Your task to perform on an android device: turn smart compose on in the gmail app Image 0: 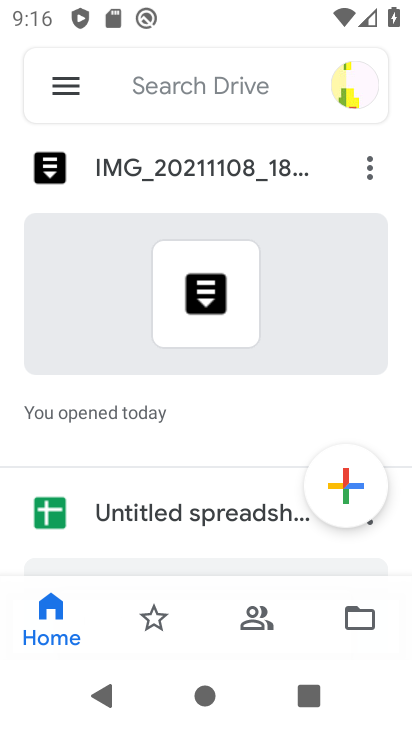
Step 0: press home button
Your task to perform on an android device: turn smart compose on in the gmail app Image 1: 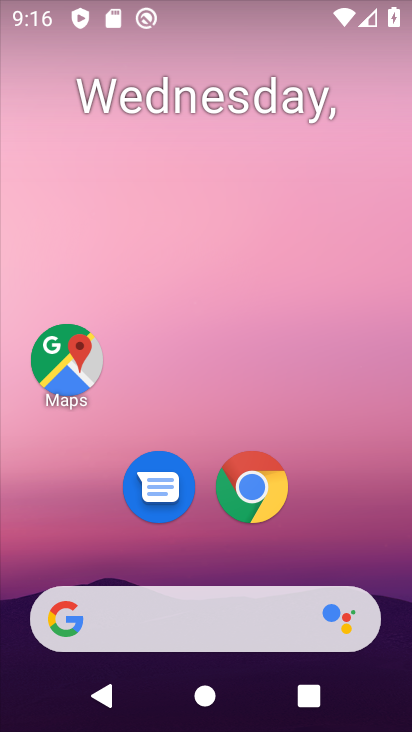
Step 1: drag from (70, 492) to (210, 206)
Your task to perform on an android device: turn smart compose on in the gmail app Image 2: 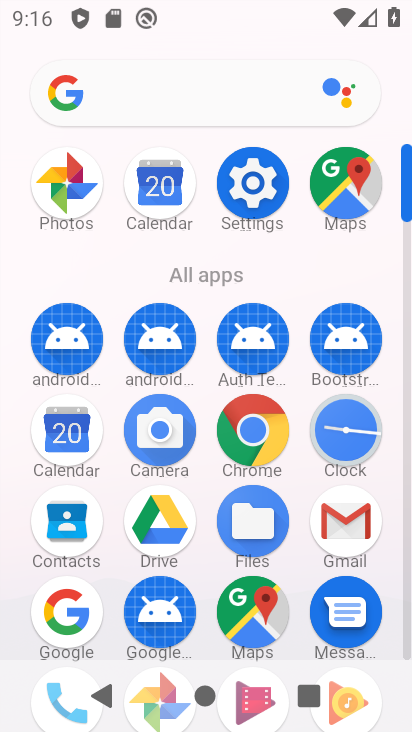
Step 2: click (322, 513)
Your task to perform on an android device: turn smart compose on in the gmail app Image 3: 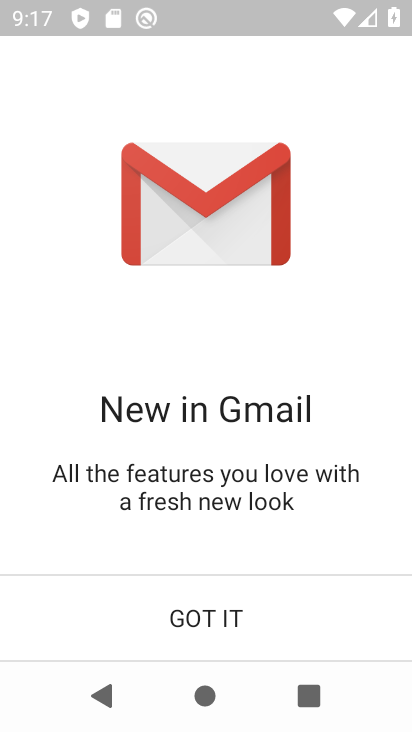
Step 3: click (90, 609)
Your task to perform on an android device: turn smart compose on in the gmail app Image 4: 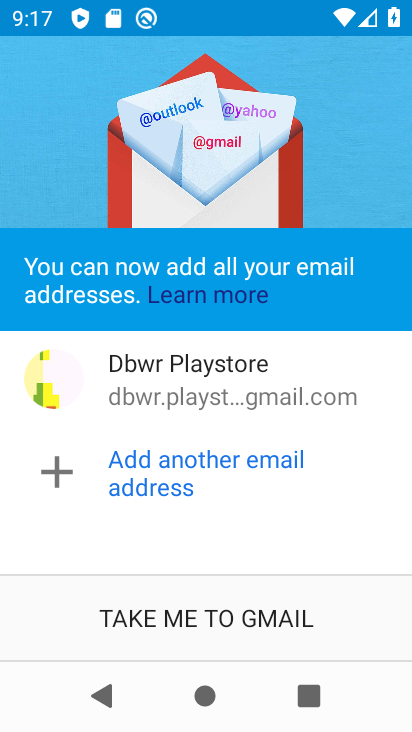
Step 4: click (140, 610)
Your task to perform on an android device: turn smart compose on in the gmail app Image 5: 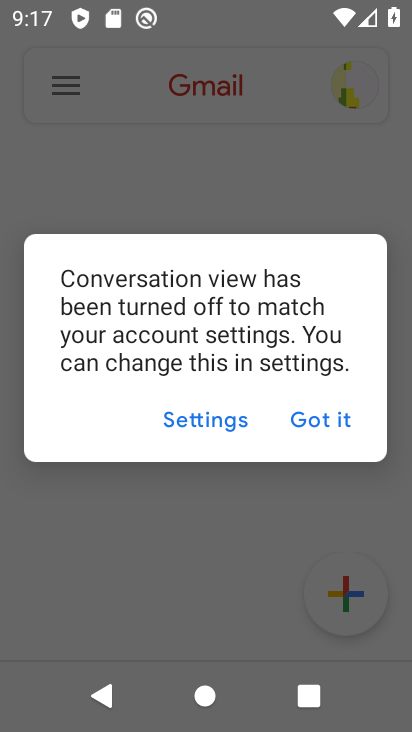
Step 5: click (210, 417)
Your task to perform on an android device: turn smart compose on in the gmail app Image 6: 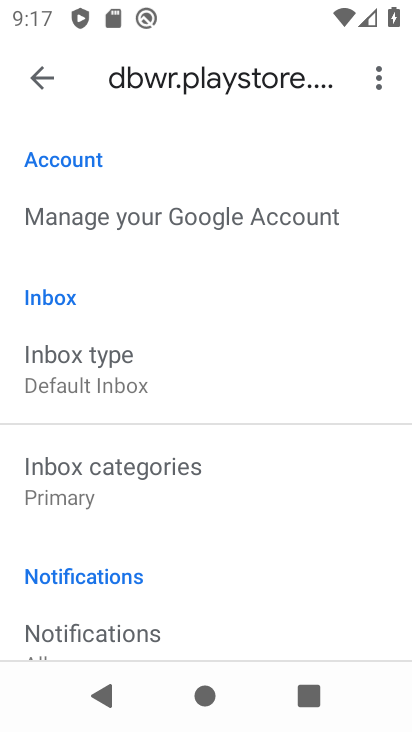
Step 6: drag from (39, 525) to (156, 247)
Your task to perform on an android device: turn smart compose on in the gmail app Image 7: 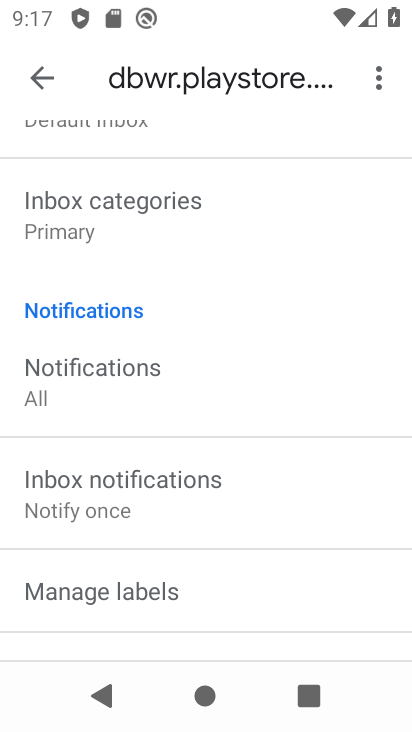
Step 7: drag from (51, 597) to (208, 266)
Your task to perform on an android device: turn smart compose on in the gmail app Image 8: 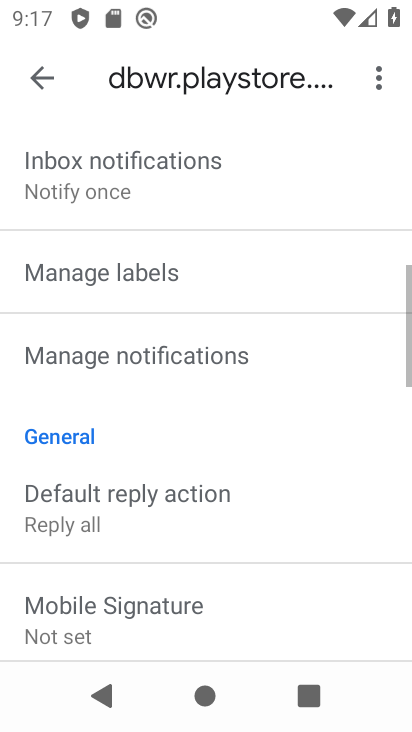
Step 8: drag from (166, 588) to (295, 294)
Your task to perform on an android device: turn smart compose on in the gmail app Image 9: 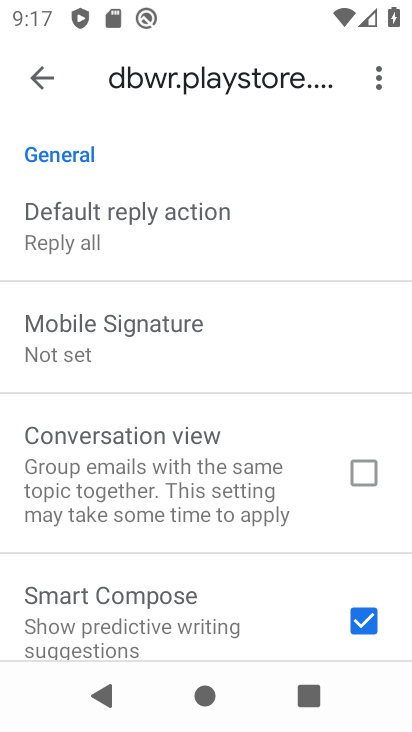
Step 9: click (75, 648)
Your task to perform on an android device: turn smart compose on in the gmail app Image 10: 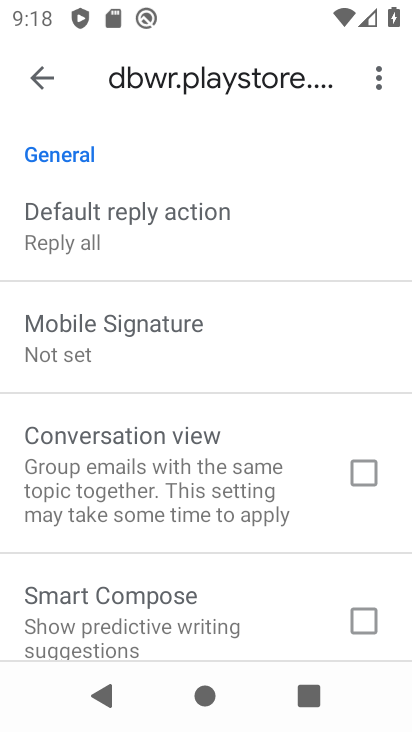
Step 10: click (358, 620)
Your task to perform on an android device: turn smart compose on in the gmail app Image 11: 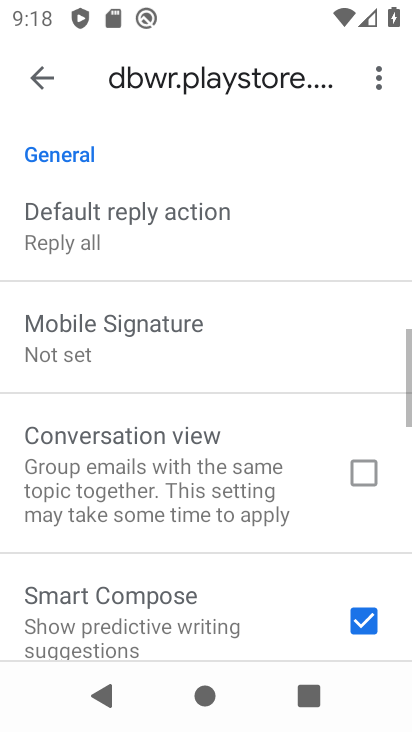
Step 11: task complete